Your task to perform on an android device: manage bookmarks in the chrome app Image 0: 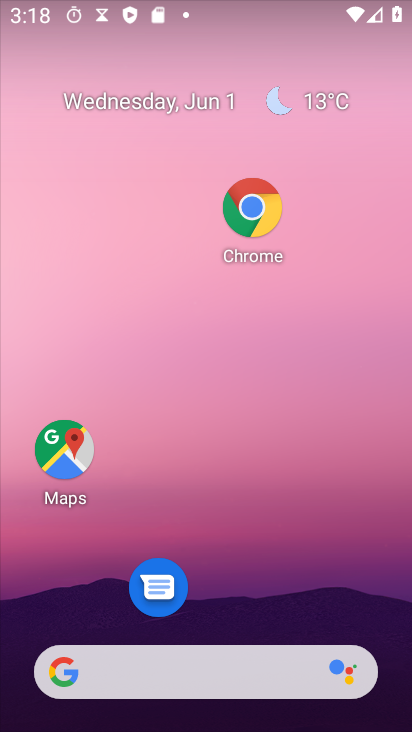
Step 0: drag from (256, 607) to (189, 196)
Your task to perform on an android device: manage bookmarks in the chrome app Image 1: 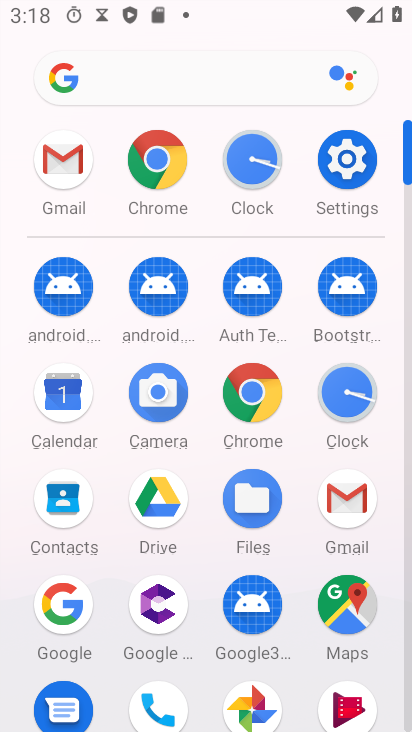
Step 1: click (249, 389)
Your task to perform on an android device: manage bookmarks in the chrome app Image 2: 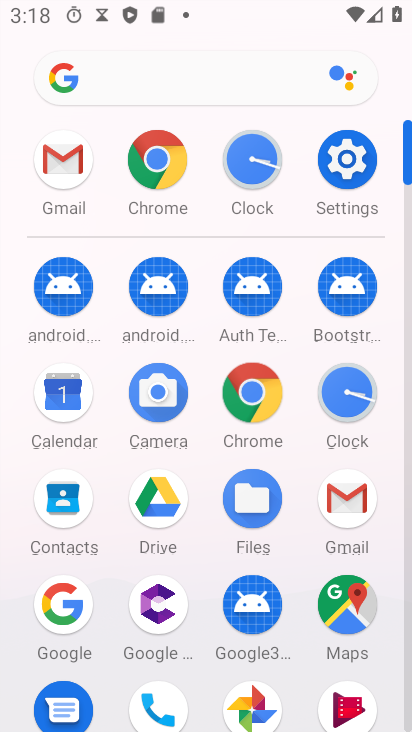
Step 2: click (249, 389)
Your task to perform on an android device: manage bookmarks in the chrome app Image 3: 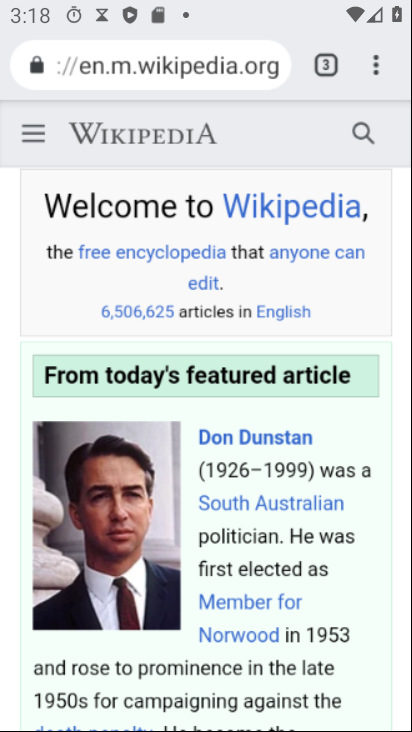
Step 3: click (250, 389)
Your task to perform on an android device: manage bookmarks in the chrome app Image 4: 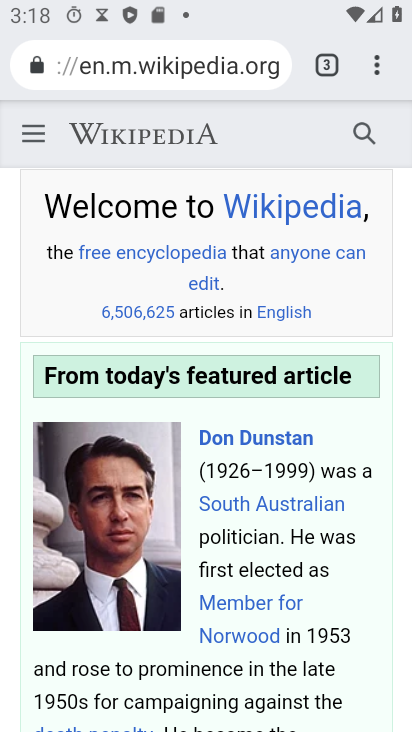
Step 4: drag from (376, 69) to (164, 254)
Your task to perform on an android device: manage bookmarks in the chrome app Image 5: 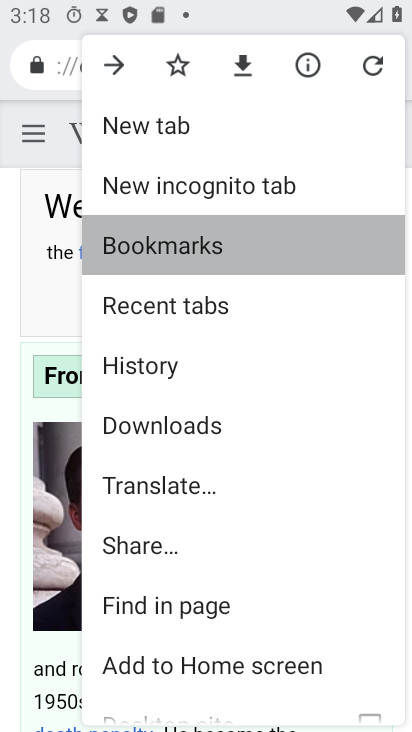
Step 5: click (169, 258)
Your task to perform on an android device: manage bookmarks in the chrome app Image 6: 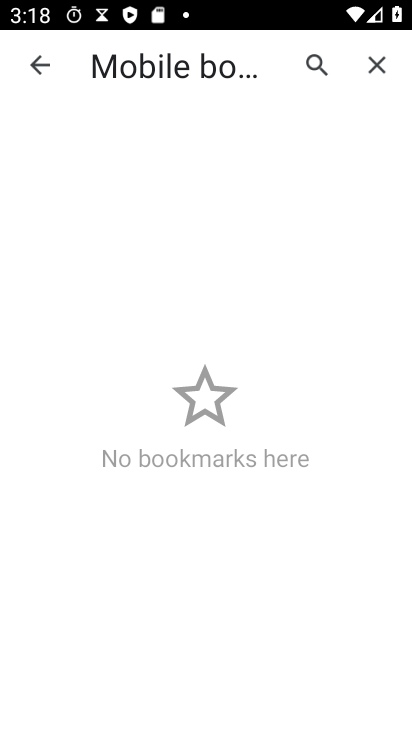
Step 6: task complete